Your task to perform on an android device: open chrome privacy settings Image 0: 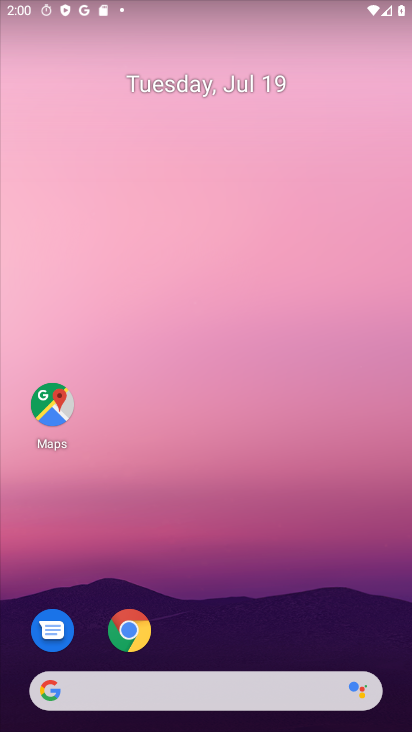
Step 0: click (133, 629)
Your task to perform on an android device: open chrome privacy settings Image 1: 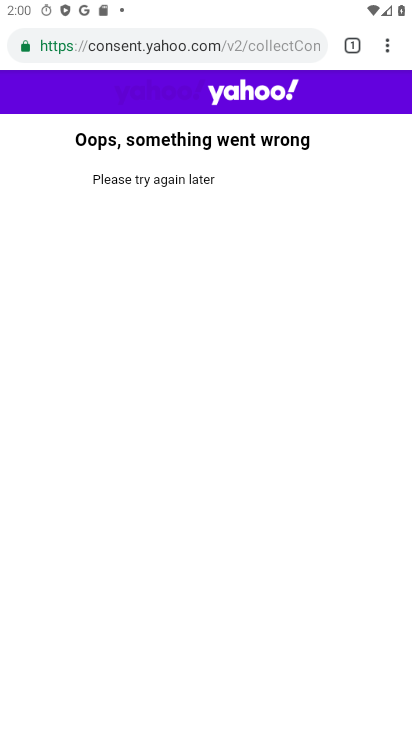
Step 1: click (387, 42)
Your task to perform on an android device: open chrome privacy settings Image 2: 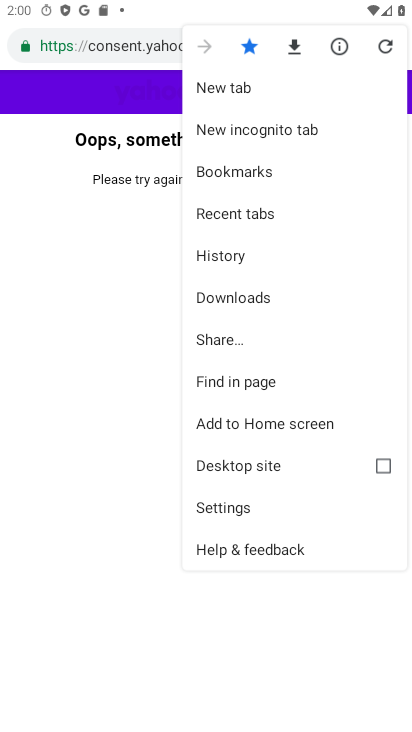
Step 2: click (230, 511)
Your task to perform on an android device: open chrome privacy settings Image 3: 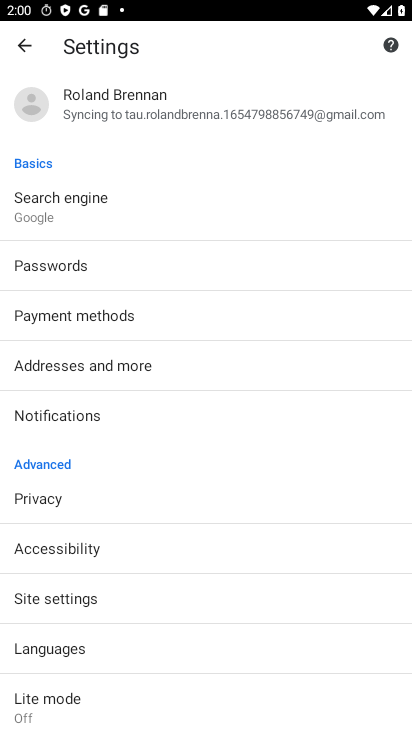
Step 3: click (47, 500)
Your task to perform on an android device: open chrome privacy settings Image 4: 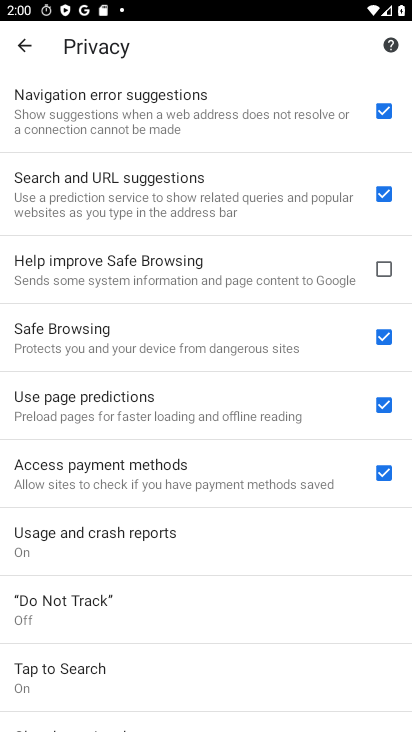
Step 4: task complete